Your task to perform on an android device: clear all cookies in the chrome app Image 0: 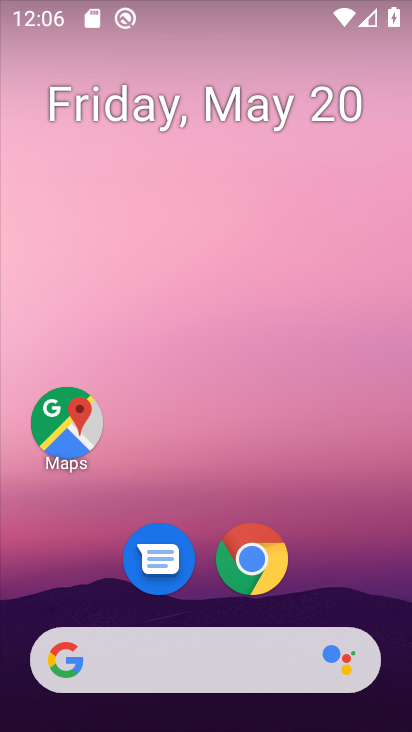
Step 0: click (258, 580)
Your task to perform on an android device: clear all cookies in the chrome app Image 1: 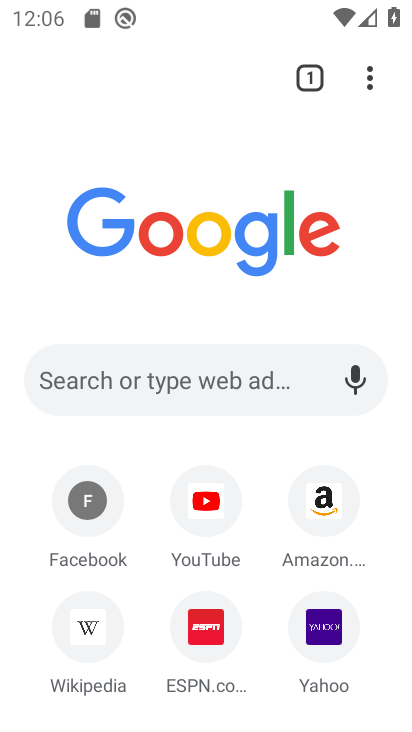
Step 1: click (371, 99)
Your task to perform on an android device: clear all cookies in the chrome app Image 2: 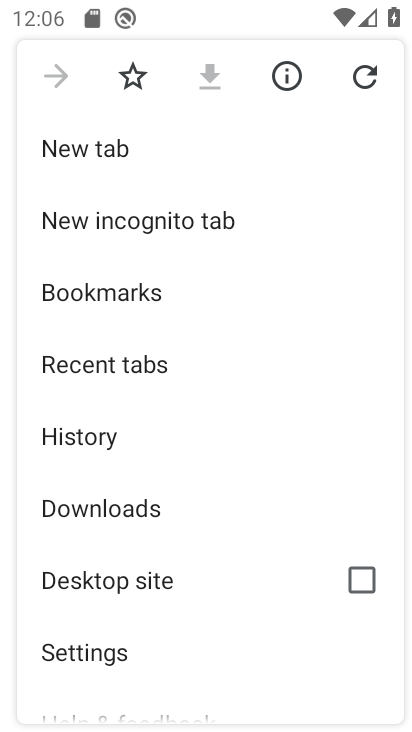
Step 2: click (204, 450)
Your task to perform on an android device: clear all cookies in the chrome app Image 3: 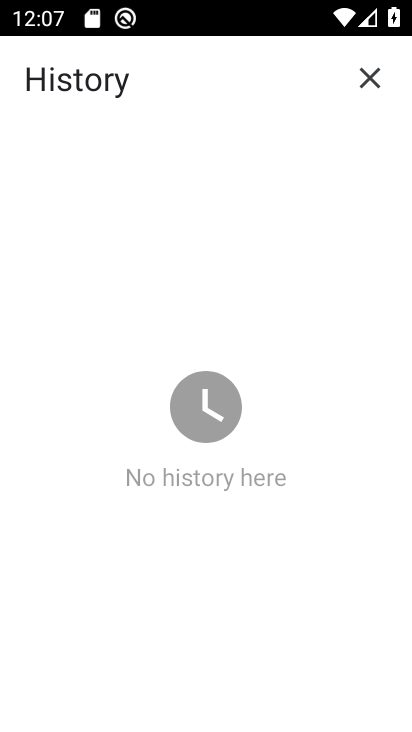
Step 3: task complete